Your task to perform on an android device: turn on notifications settings in the gmail app Image 0: 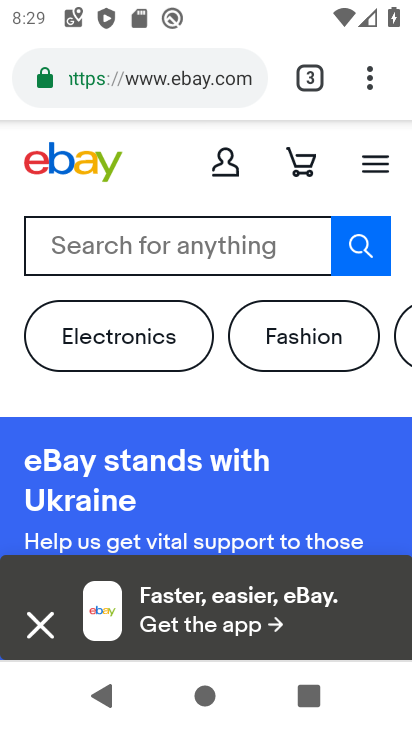
Step 0: press home button
Your task to perform on an android device: turn on notifications settings in the gmail app Image 1: 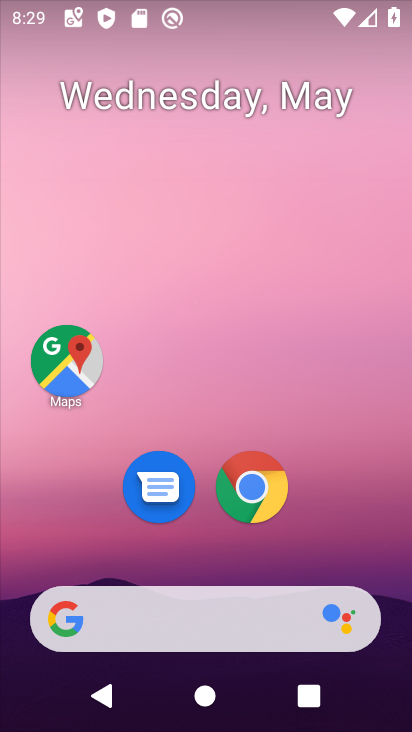
Step 1: drag from (352, 510) to (325, 120)
Your task to perform on an android device: turn on notifications settings in the gmail app Image 2: 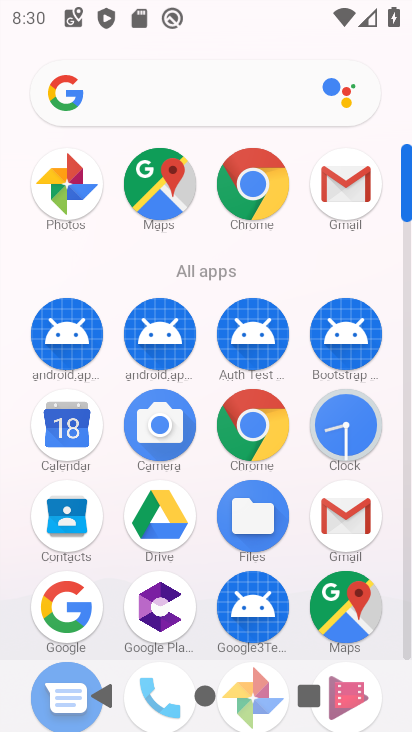
Step 2: click (349, 182)
Your task to perform on an android device: turn on notifications settings in the gmail app Image 3: 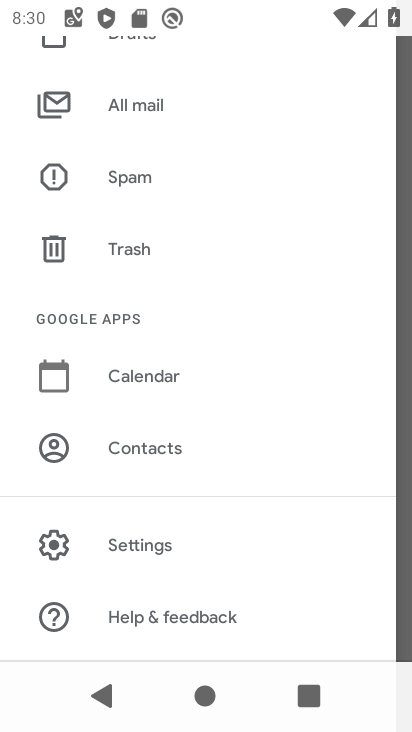
Step 3: click (134, 538)
Your task to perform on an android device: turn on notifications settings in the gmail app Image 4: 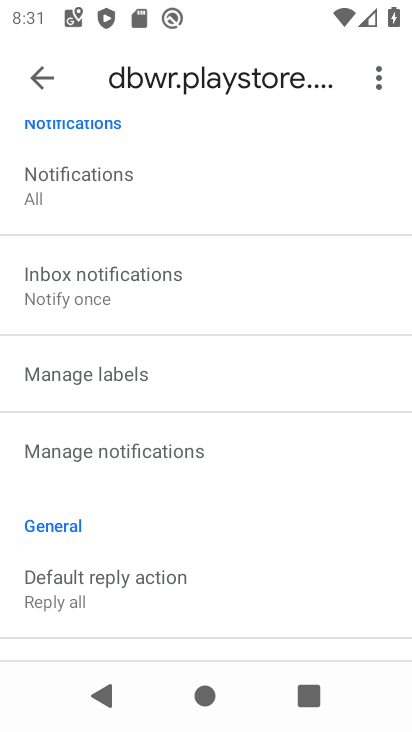
Step 4: click (36, 79)
Your task to perform on an android device: turn on notifications settings in the gmail app Image 5: 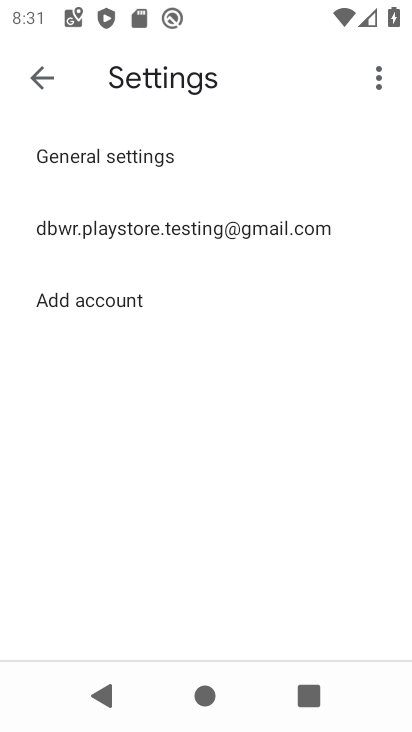
Step 5: click (98, 155)
Your task to perform on an android device: turn on notifications settings in the gmail app Image 6: 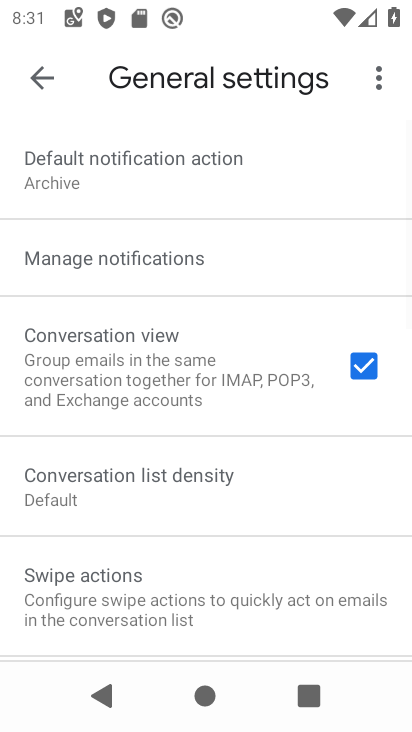
Step 6: click (107, 247)
Your task to perform on an android device: turn on notifications settings in the gmail app Image 7: 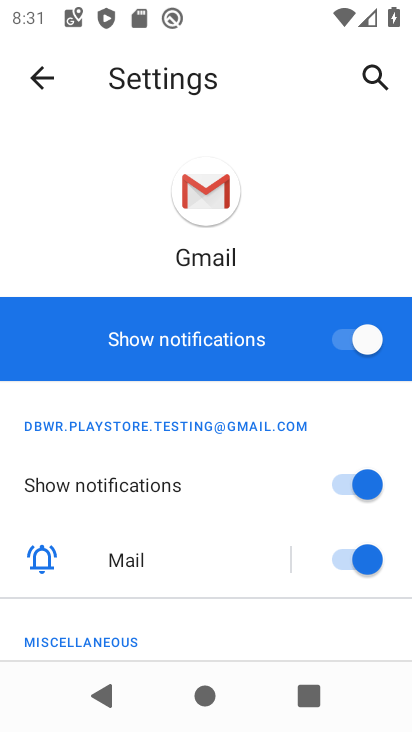
Step 7: task complete